Your task to perform on an android device: What is the news today? Image 0: 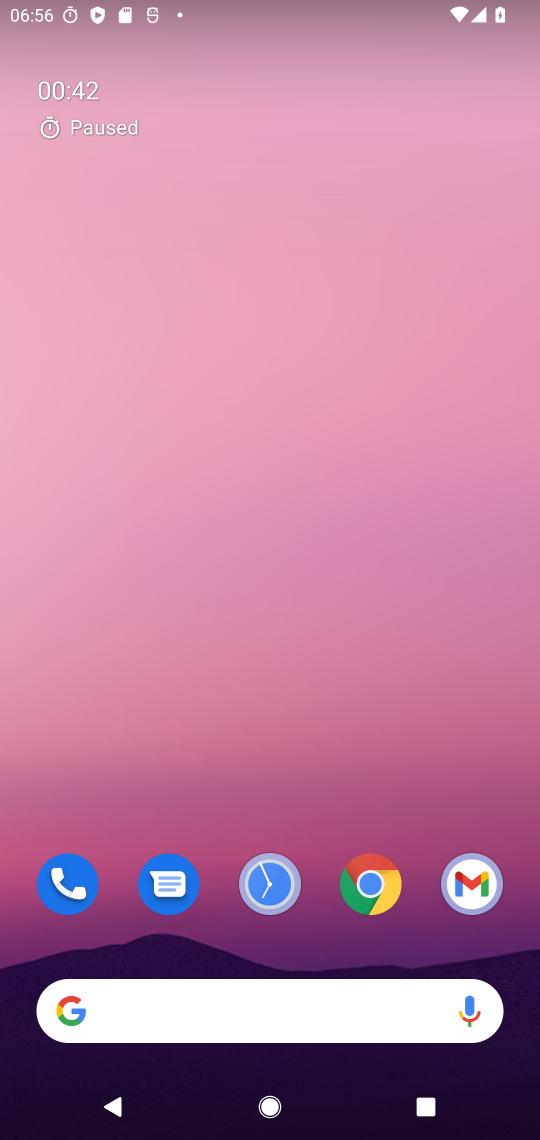
Step 0: press home button
Your task to perform on an android device: What is the news today? Image 1: 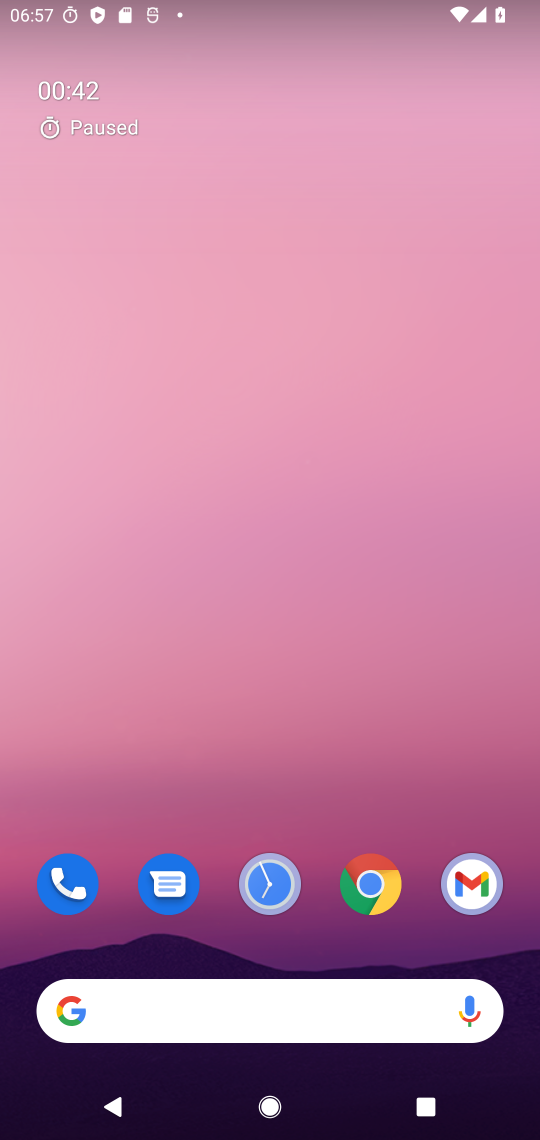
Step 1: click (72, 1004)
Your task to perform on an android device: What is the news today? Image 2: 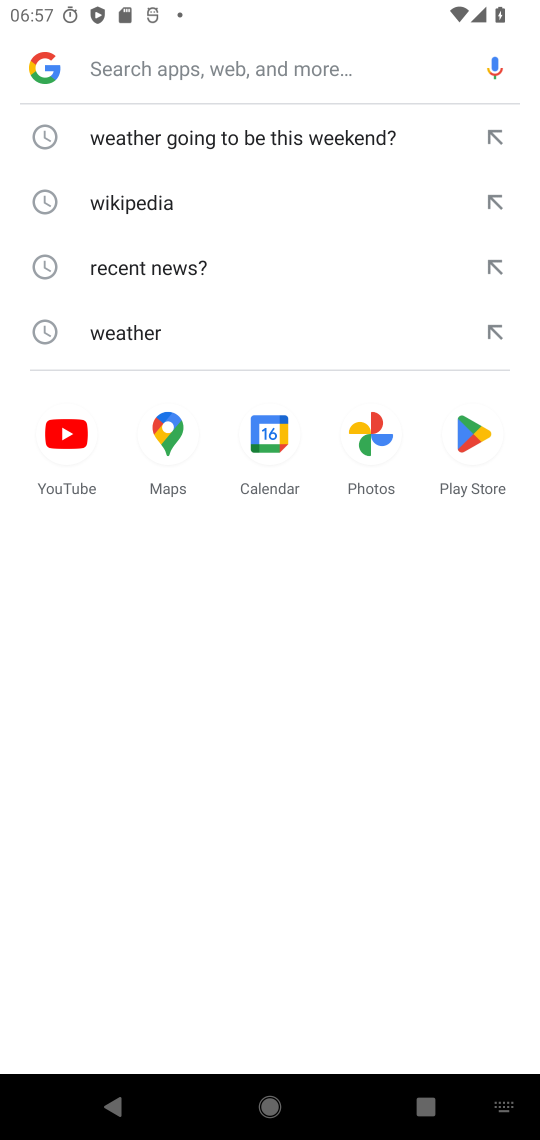
Step 2: press enter
Your task to perform on an android device: What is the news today? Image 3: 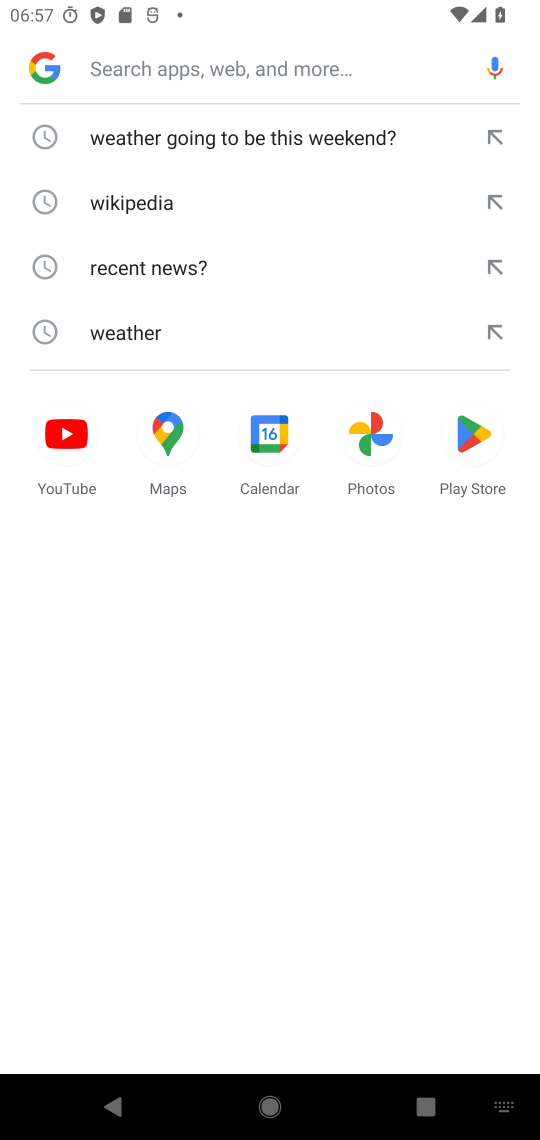
Step 3: type " news today?"
Your task to perform on an android device: What is the news today? Image 4: 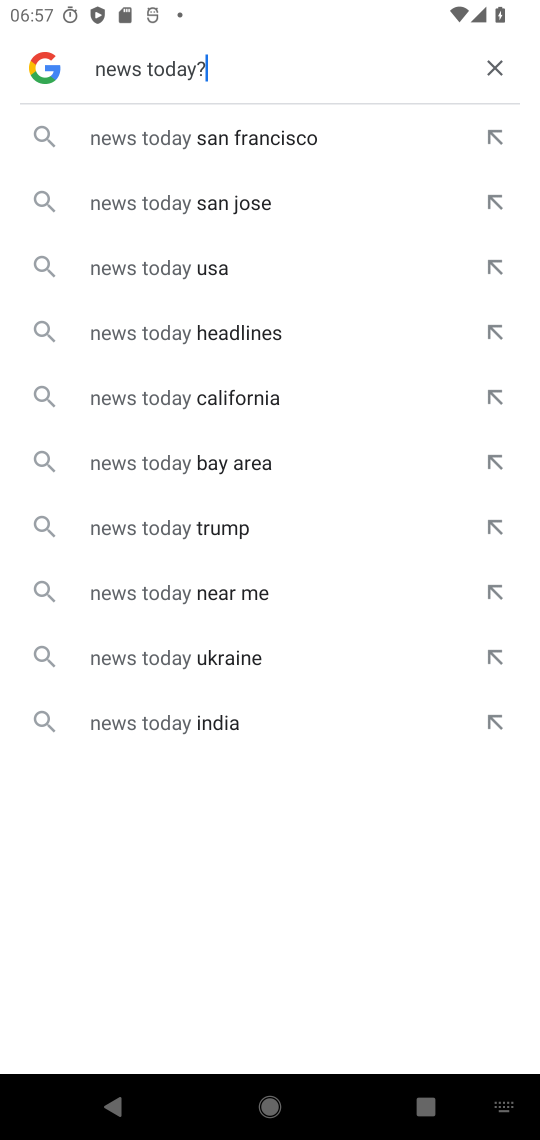
Step 4: press enter
Your task to perform on an android device: What is the news today? Image 5: 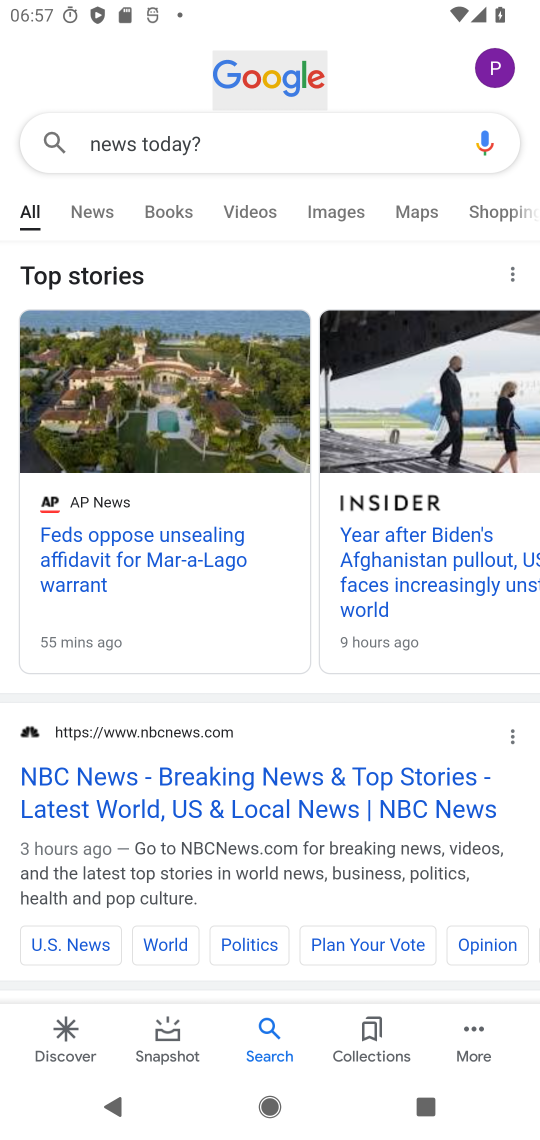
Step 5: task complete